Your task to perform on an android device: Clear the cart on target.com. Add "usb-a" to the cart on target.com, then select checkout. Image 0: 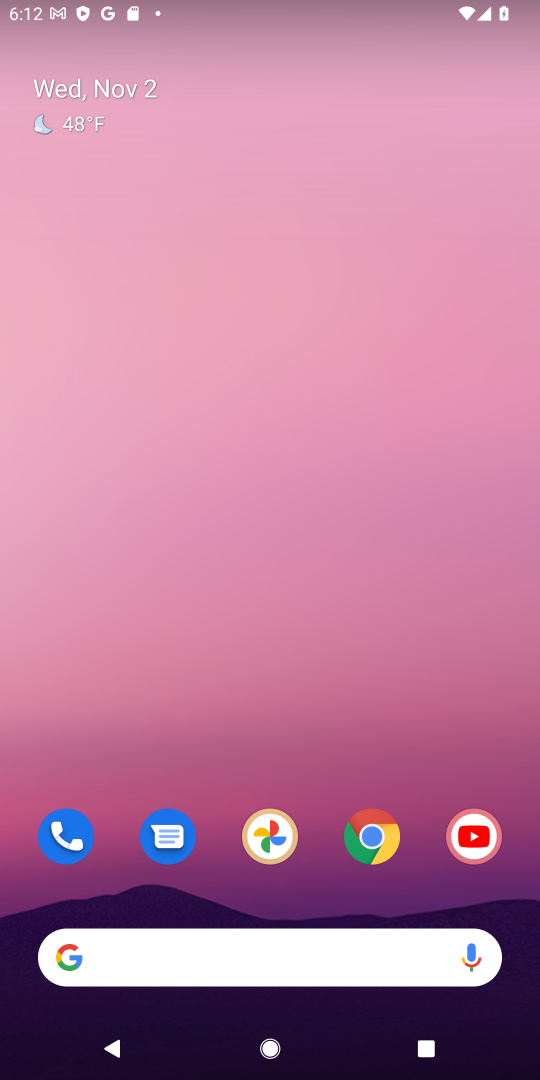
Step 0: drag from (257, 942) to (221, 177)
Your task to perform on an android device: Clear the cart on target.com. Add "usb-a" to the cart on target.com, then select checkout. Image 1: 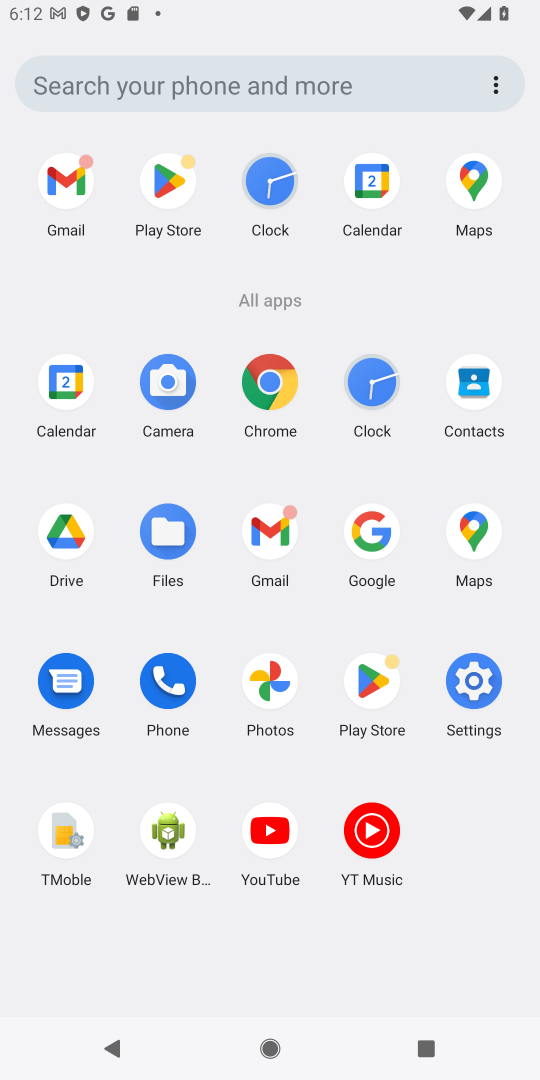
Step 1: click (363, 529)
Your task to perform on an android device: Clear the cart on target.com. Add "usb-a" to the cart on target.com, then select checkout. Image 2: 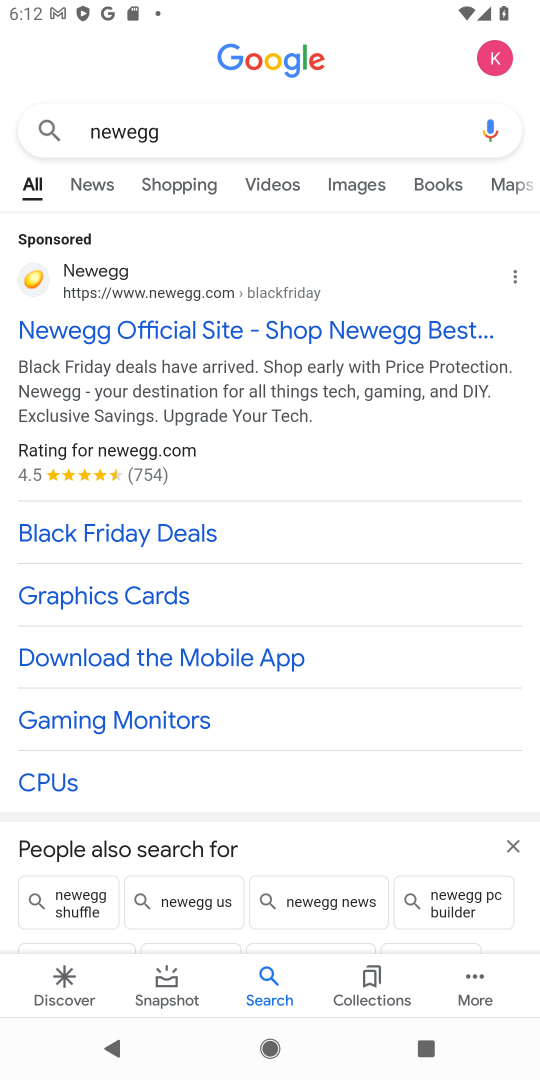
Step 2: click (144, 126)
Your task to perform on an android device: Clear the cart on target.com. Add "usb-a" to the cart on target.com, then select checkout. Image 3: 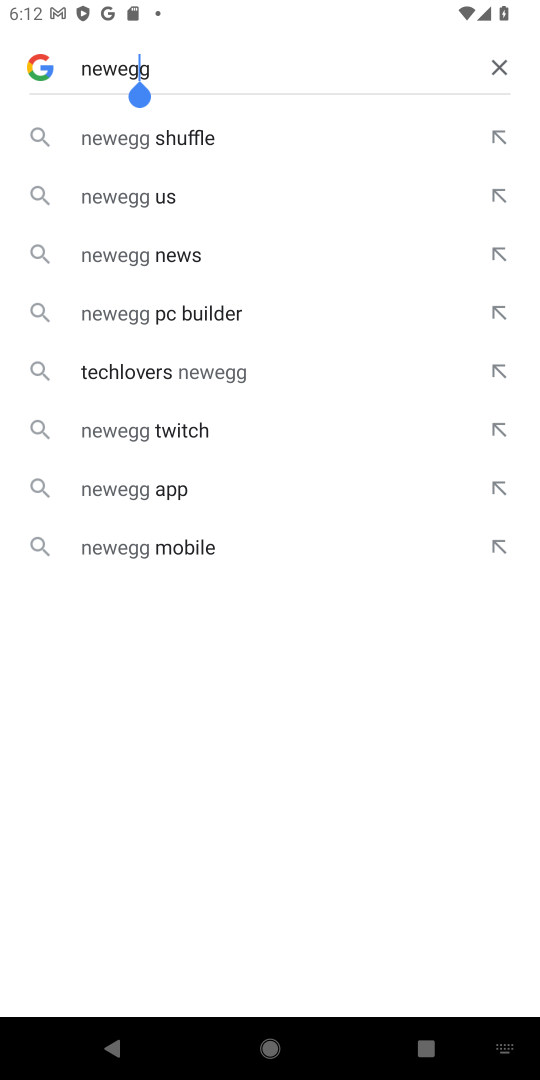
Step 3: click (503, 72)
Your task to perform on an android device: Clear the cart on target.com. Add "usb-a" to the cart on target.com, then select checkout. Image 4: 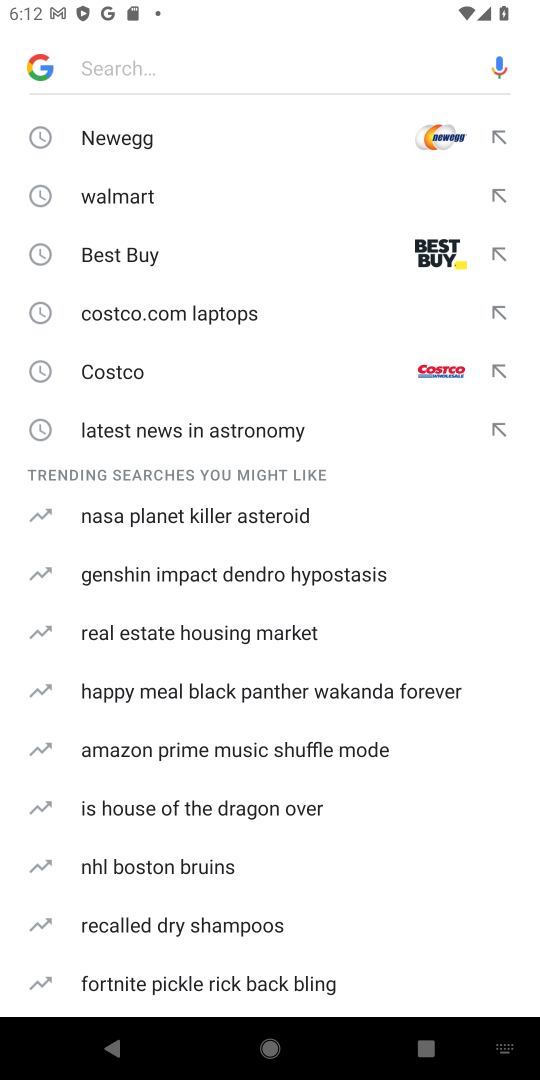
Step 4: type "target.com"
Your task to perform on an android device: Clear the cart on target.com. Add "usb-a" to the cart on target.com, then select checkout. Image 5: 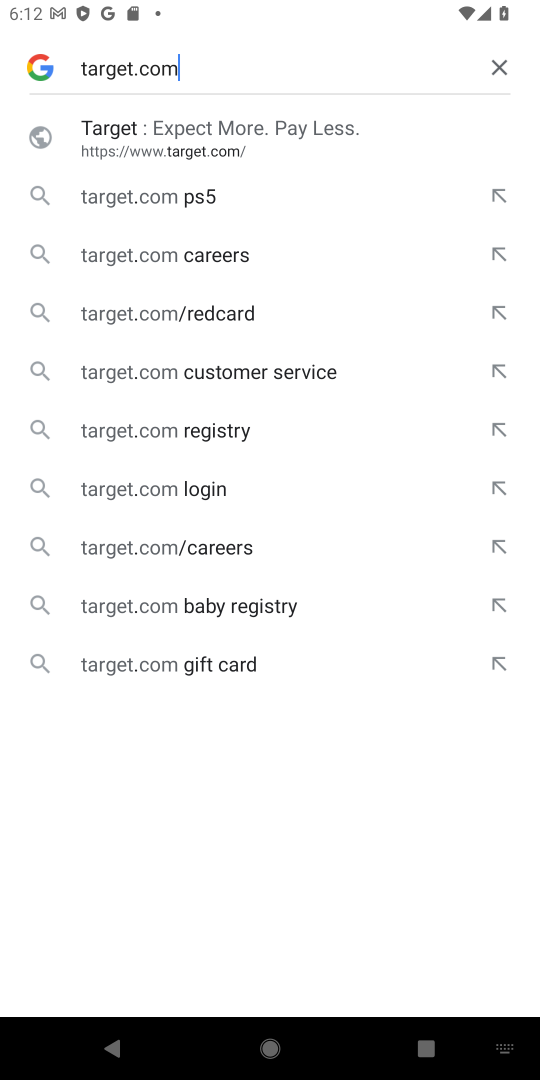
Step 5: click (139, 145)
Your task to perform on an android device: Clear the cart on target.com. Add "usb-a" to the cart on target.com, then select checkout. Image 6: 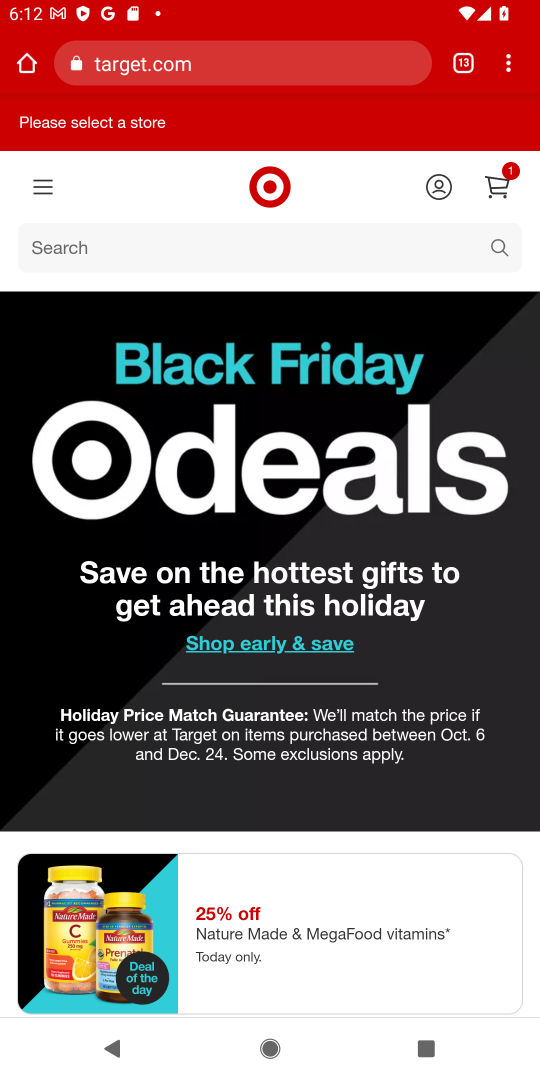
Step 6: click (226, 247)
Your task to perform on an android device: Clear the cart on target.com. Add "usb-a" to the cart on target.com, then select checkout. Image 7: 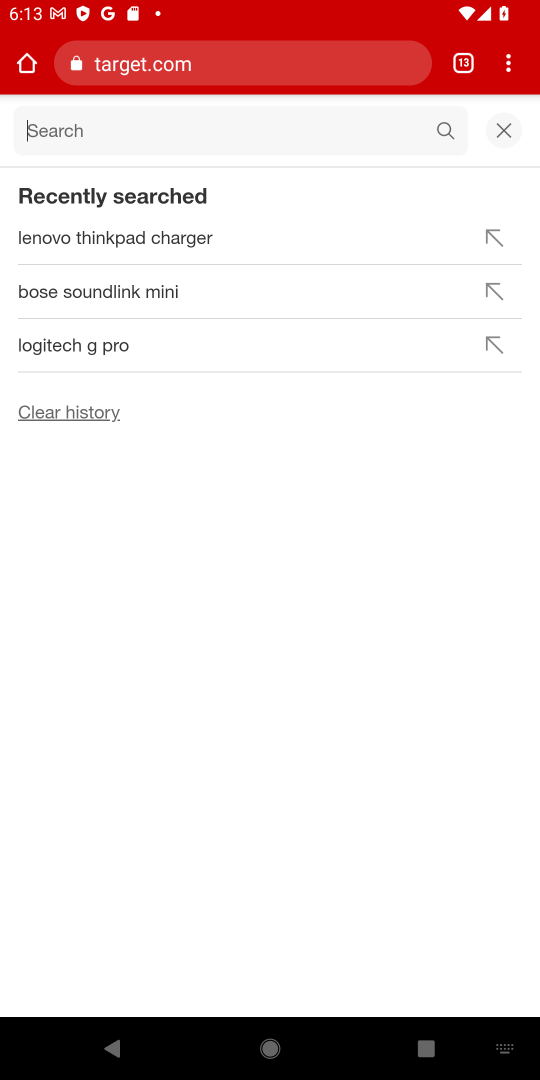
Step 7: type "usb-a"
Your task to perform on an android device: Clear the cart on target.com. Add "usb-a" to the cart on target.com, then select checkout. Image 8: 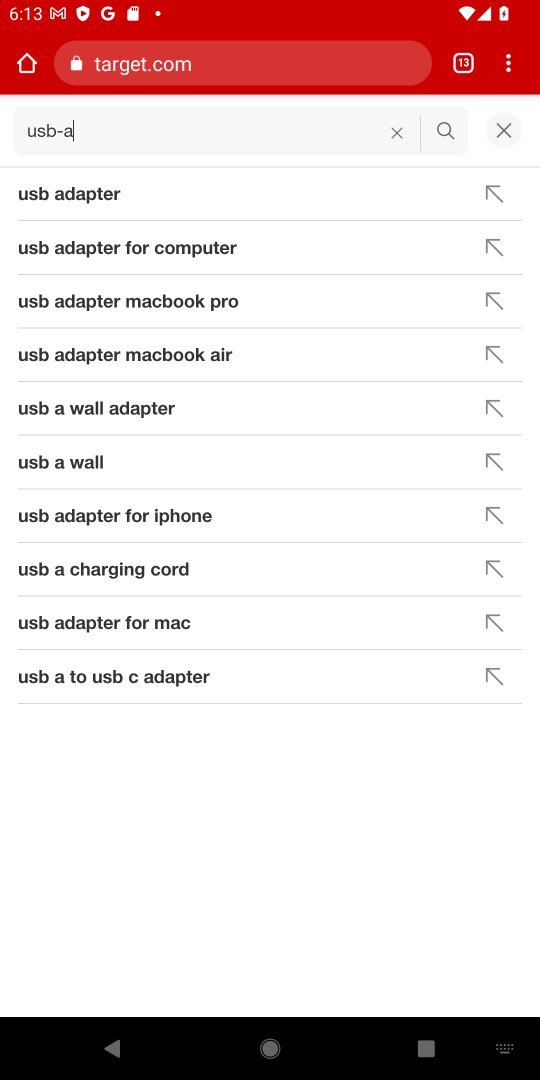
Step 8: click (44, 190)
Your task to perform on an android device: Clear the cart on target.com. Add "usb-a" to the cart on target.com, then select checkout. Image 9: 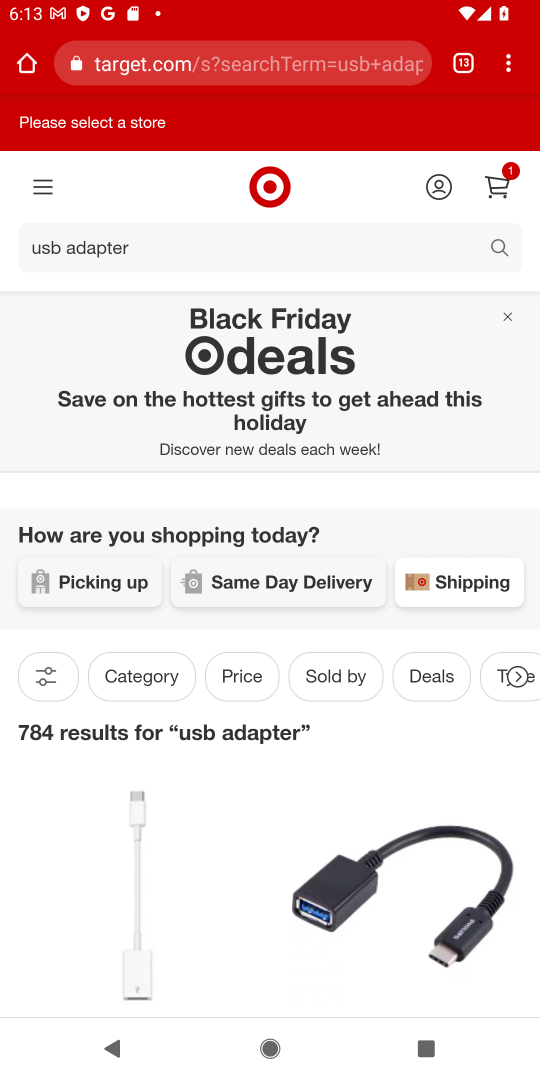
Step 9: drag from (199, 893) to (236, 426)
Your task to perform on an android device: Clear the cart on target.com. Add "usb-a" to the cart on target.com, then select checkout. Image 10: 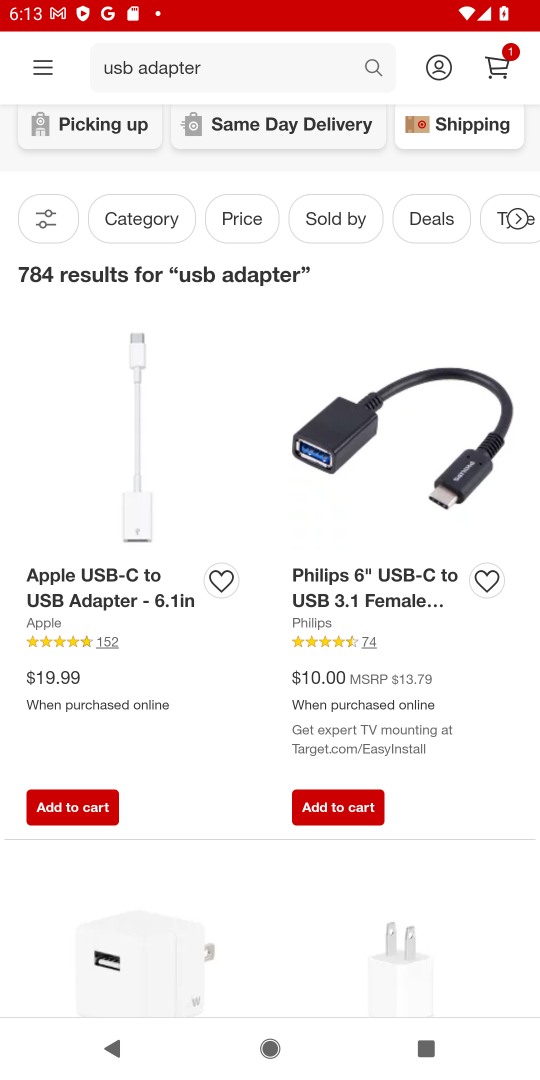
Step 10: click (49, 802)
Your task to perform on an android device: Clear the cart on target.com. Add "usb-a" to the cart on target.com, then select checkout. Image 11: 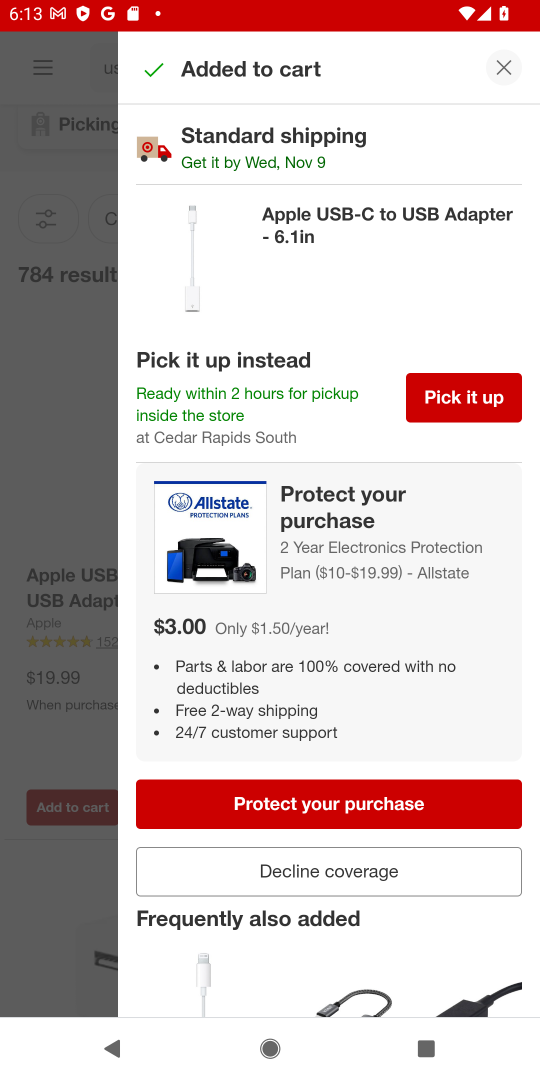
Step 11: task complete